Your task to perform on an android device: Show me the alarms in the clock app Image 0: 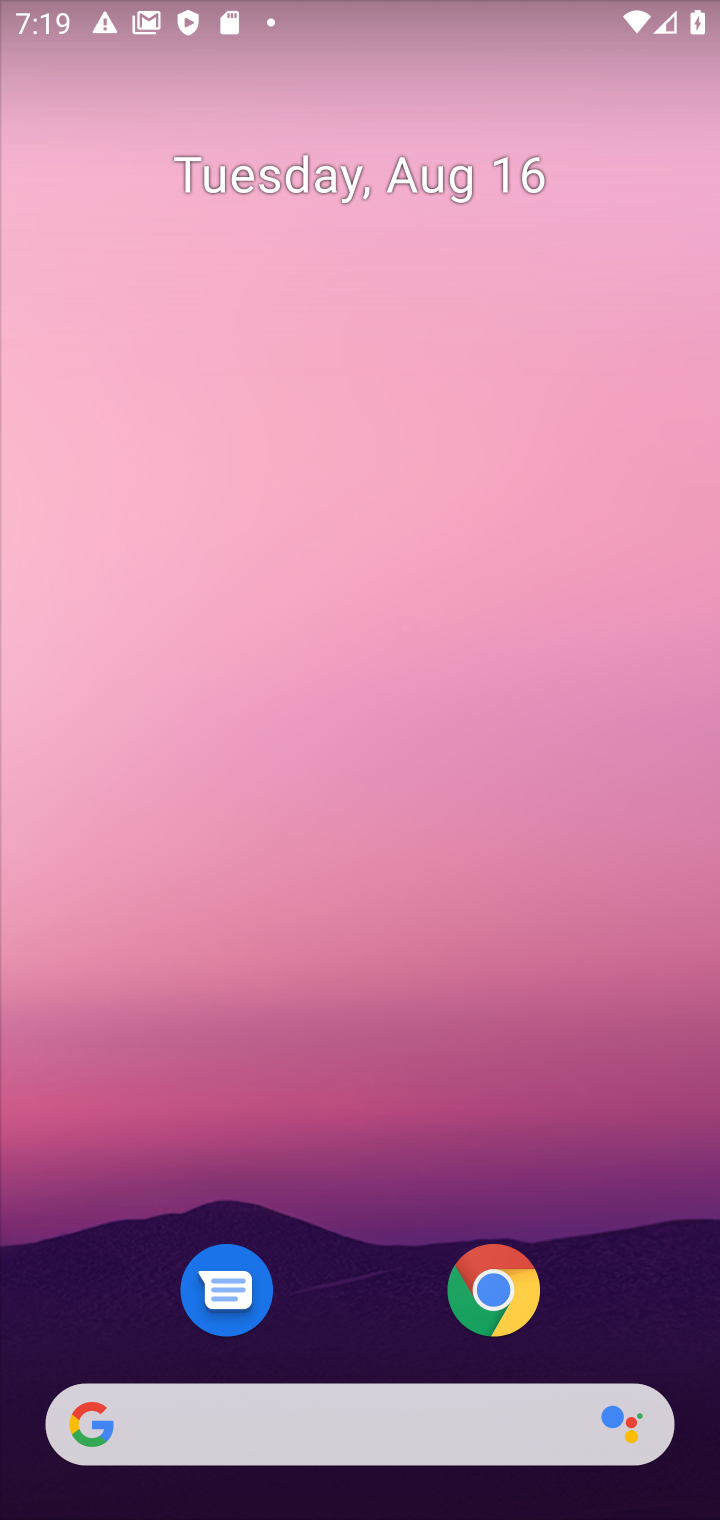
Step 0: drag from (452, 1359) to (578, 560)
Your task to perform on an android device: Show me the alarms in the clock app Image 1: 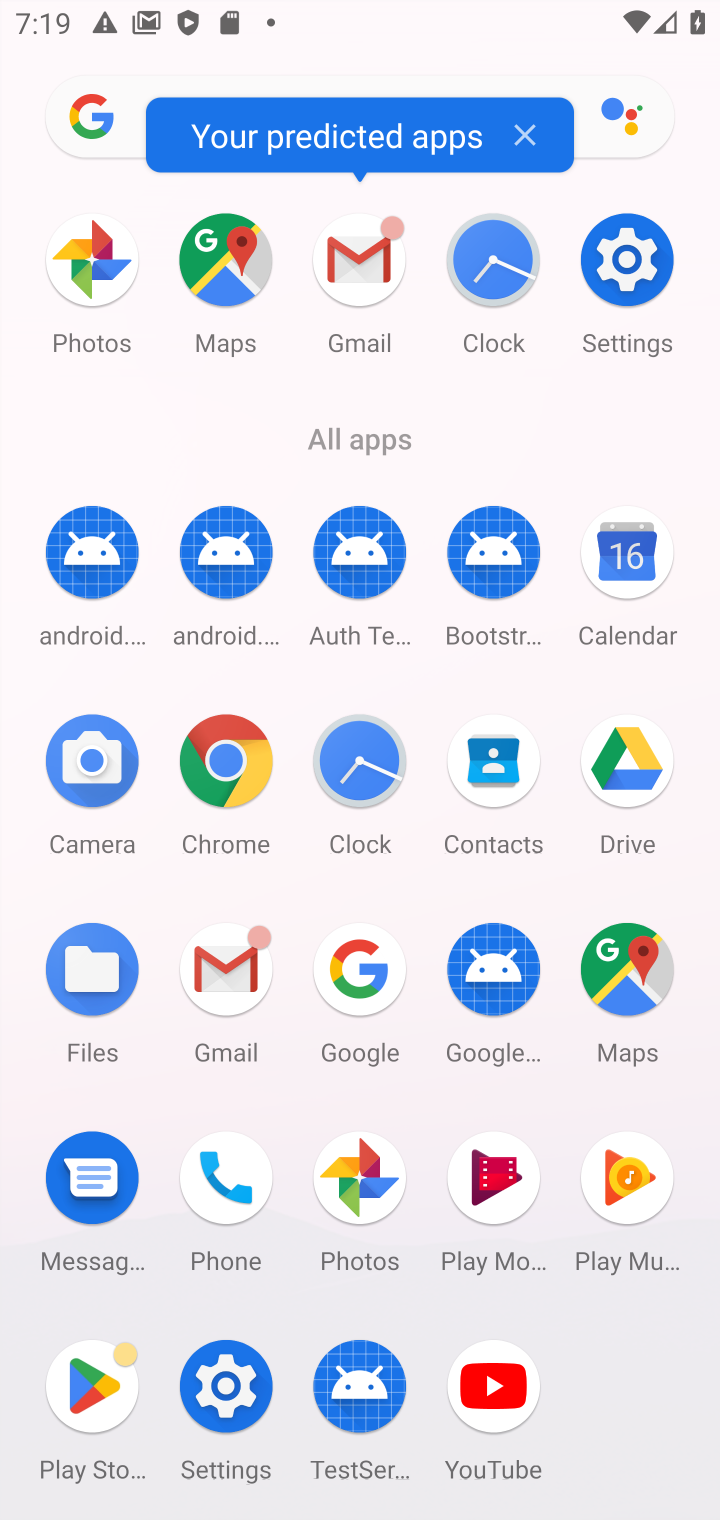
Step 1: click (496, 258)
Your task to perform on an android device: Show me the alarms in the clock app Image 2: 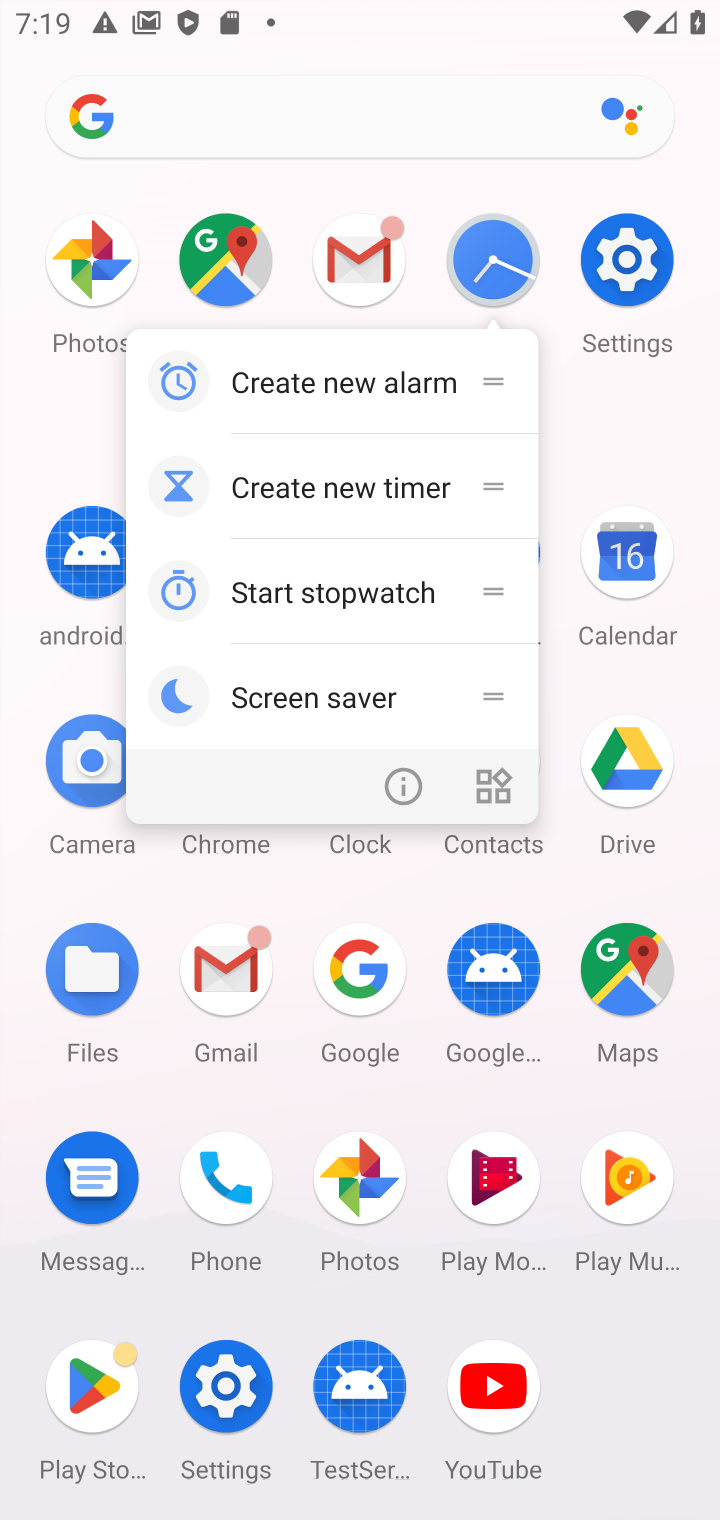
Step 2: click (496, 255)
Your task to perform on an android device: Show me the alarms in the clock app Image 3: 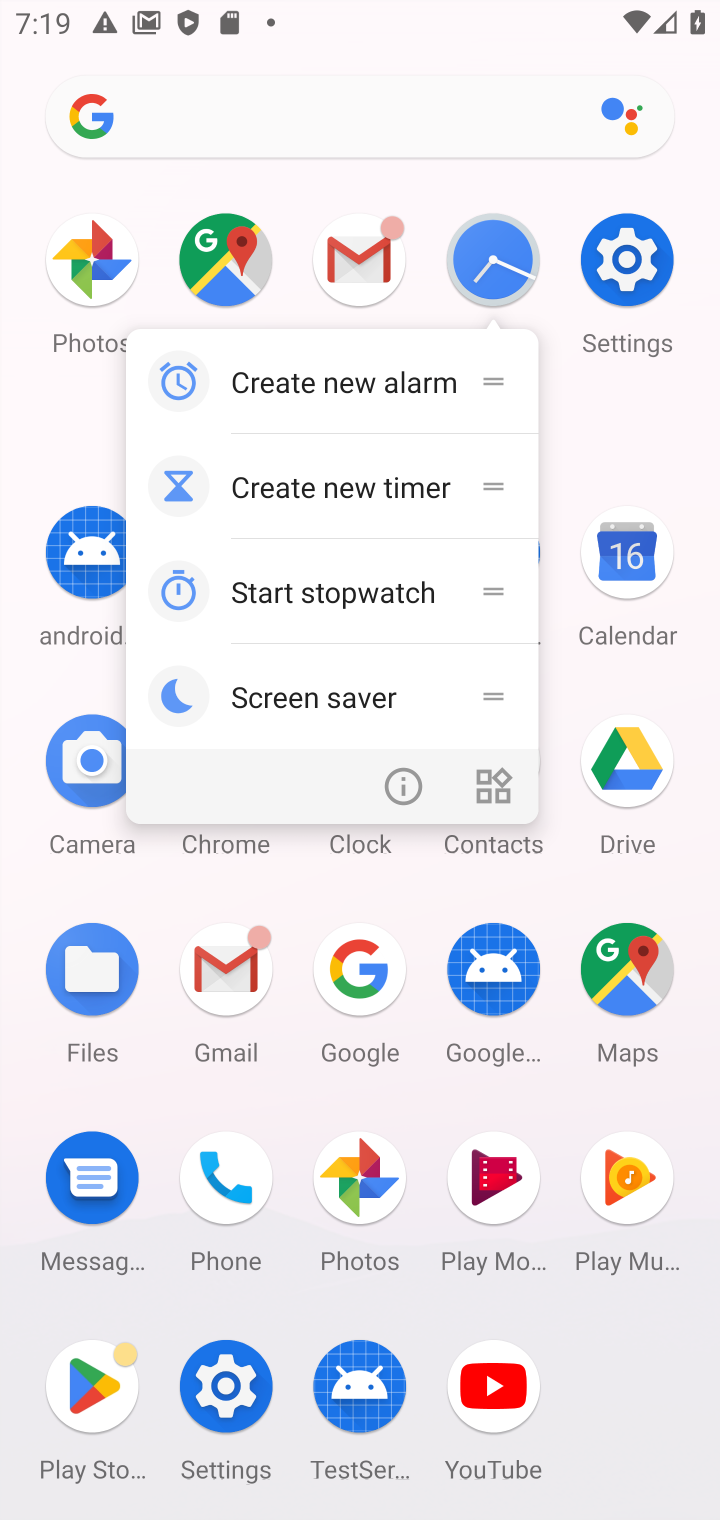
Step 3: click (494, 270)
Your task to perform on an android device: Show me the alarms in the clock app Image 4: 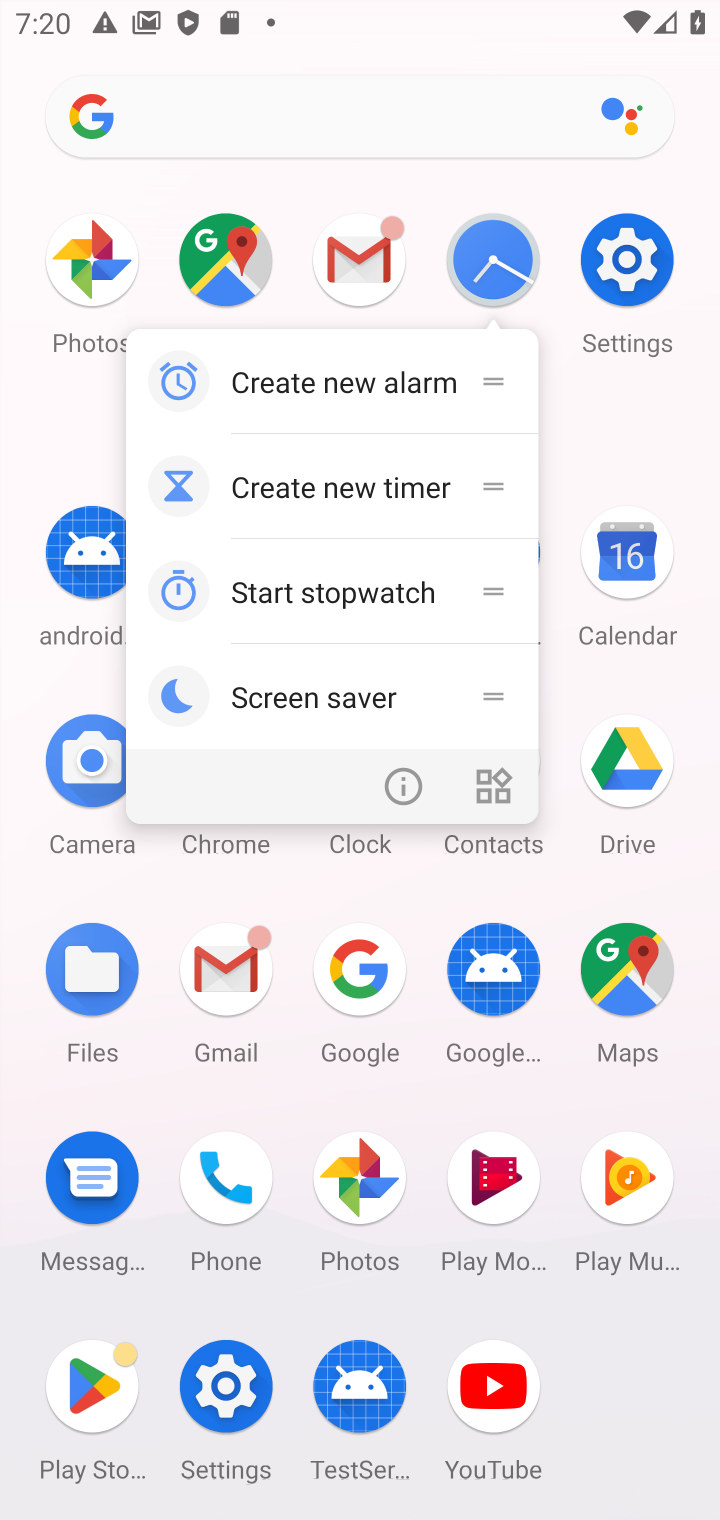
Step 4: click (494, 270)
Your task to perform on an android device: Show me the alarms in the clock app Image 5: 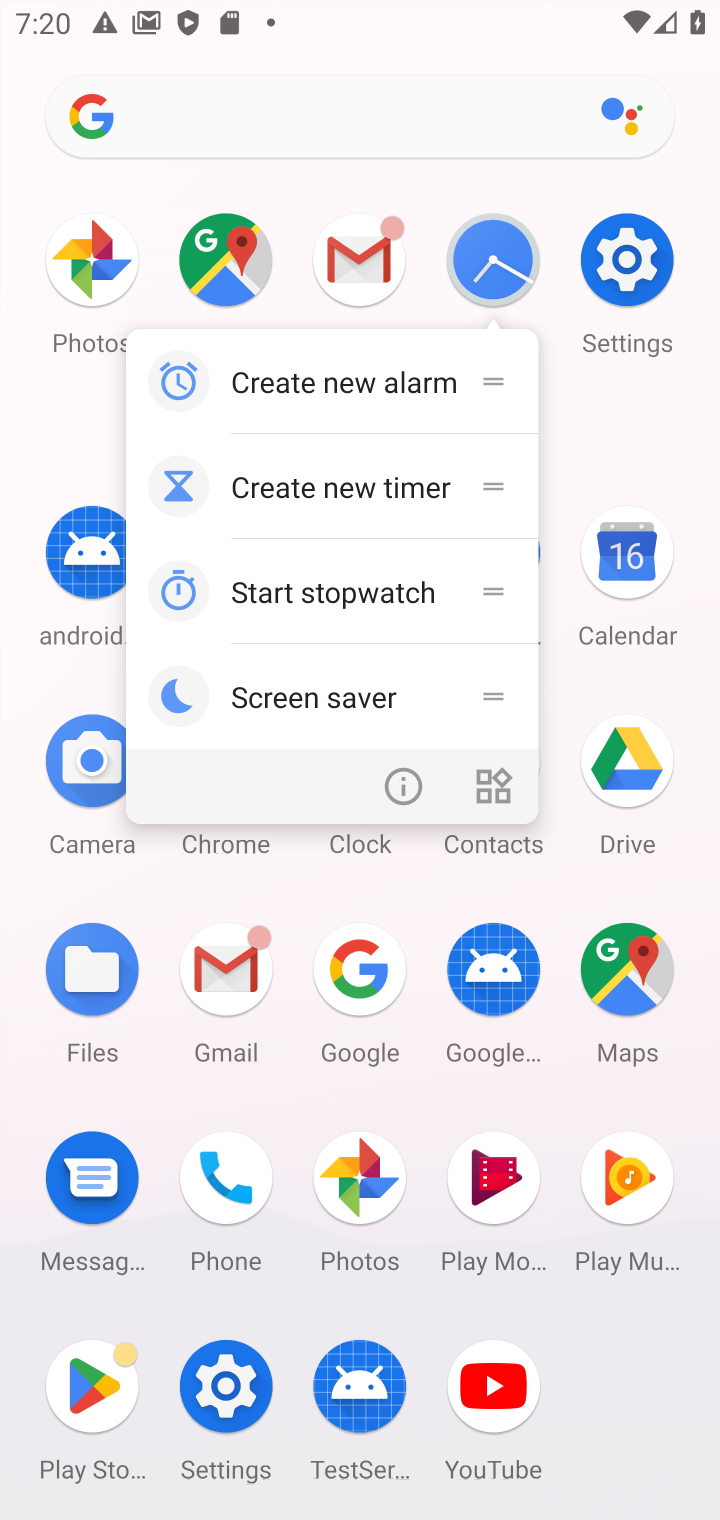
Step 5: click (494, 276)
Your task to perform on an android device: Show me the alarms in the clock app Image 6: 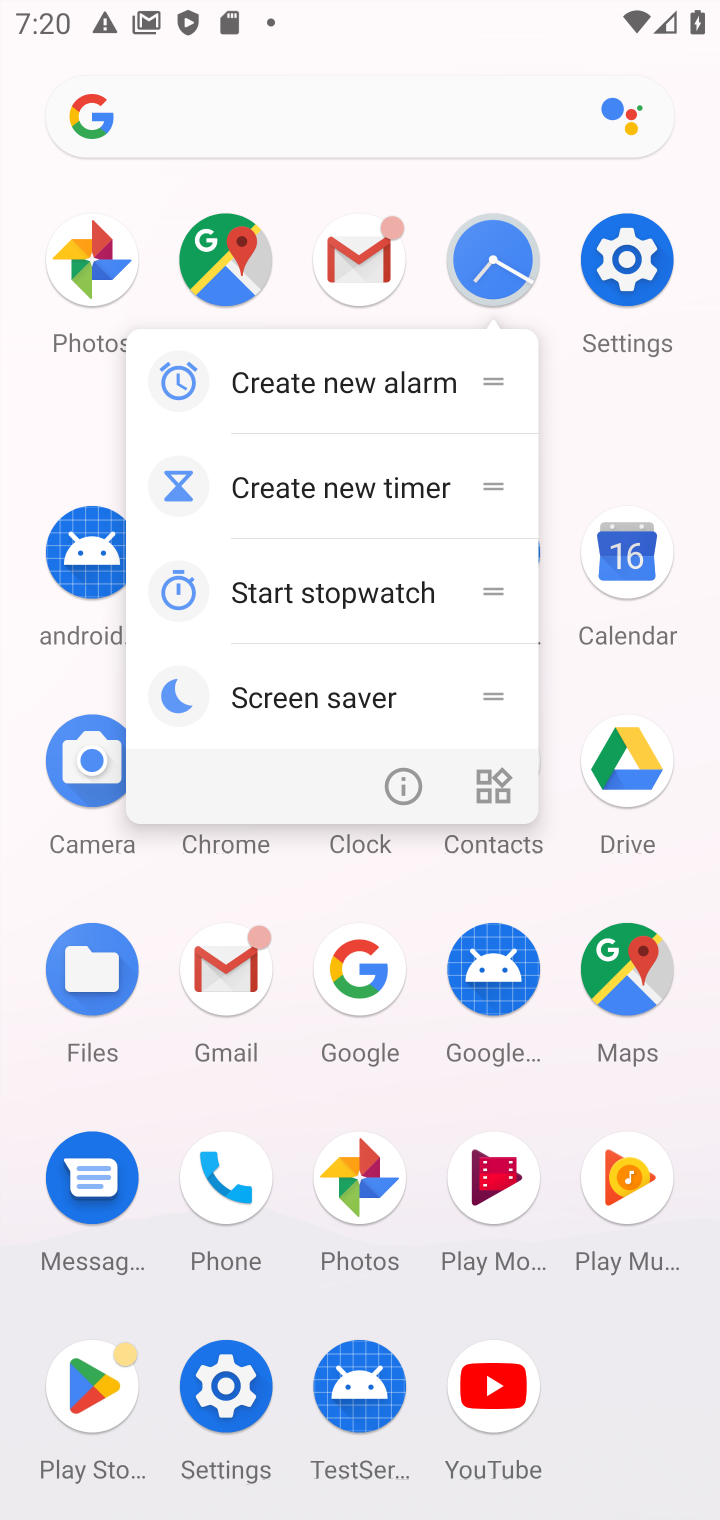
Step 6: click (494, 276)
Your task to perform on an android device: Show me the alarms in the clock app Image 7: 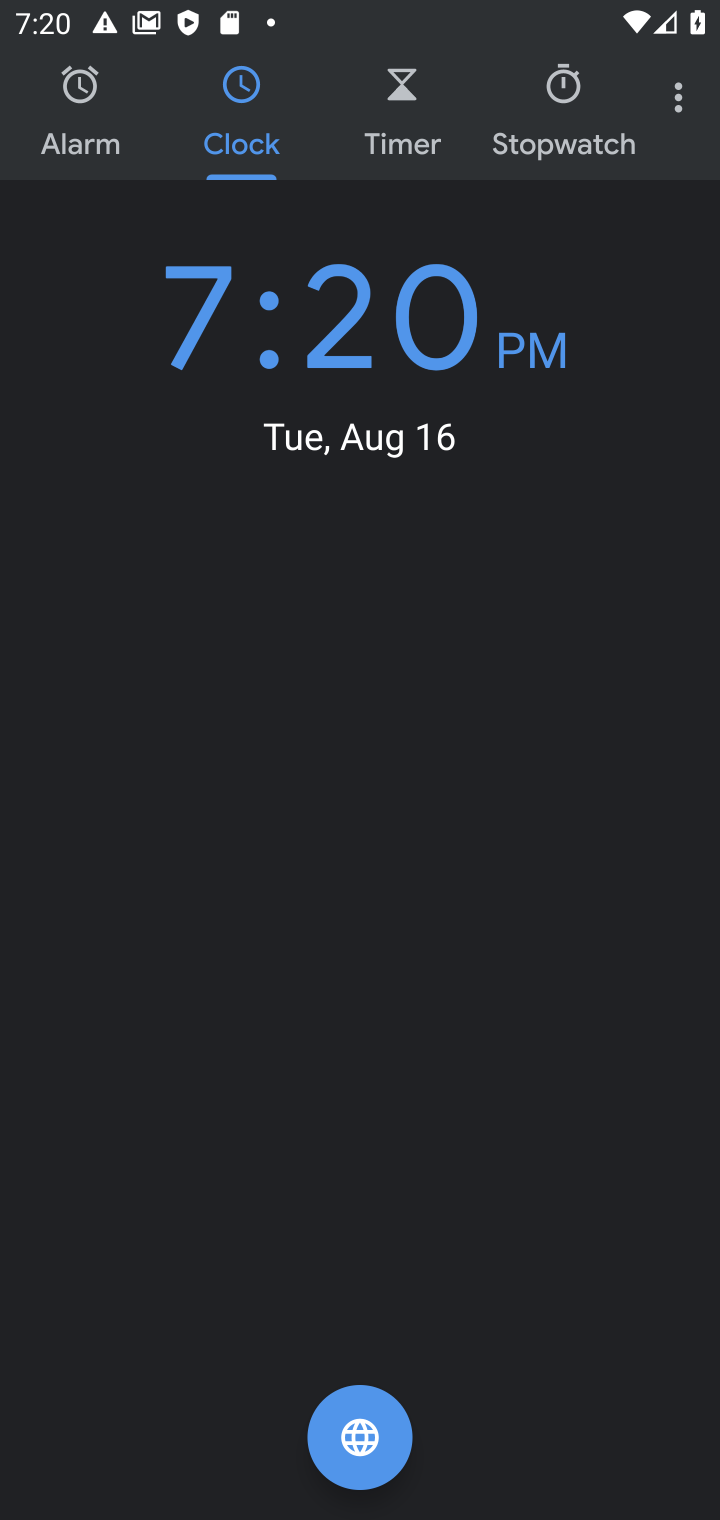
Step 7: click (81, 147)
Your task to perform on an android device: Show me the alarms in the clock app Image 8: 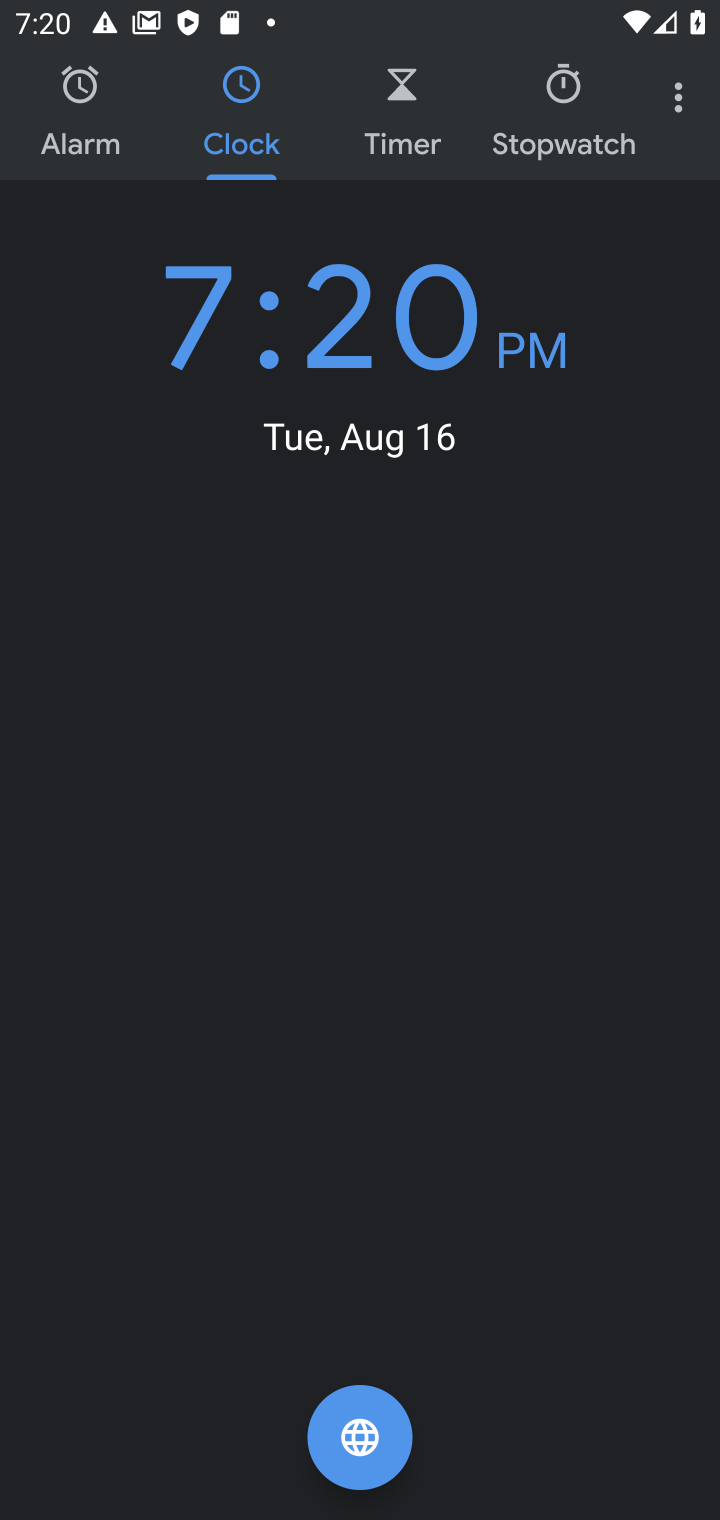
Step 8: click (74, 94)
Your task to perform on an android device: Show me the alarms in the clock app Image 9: 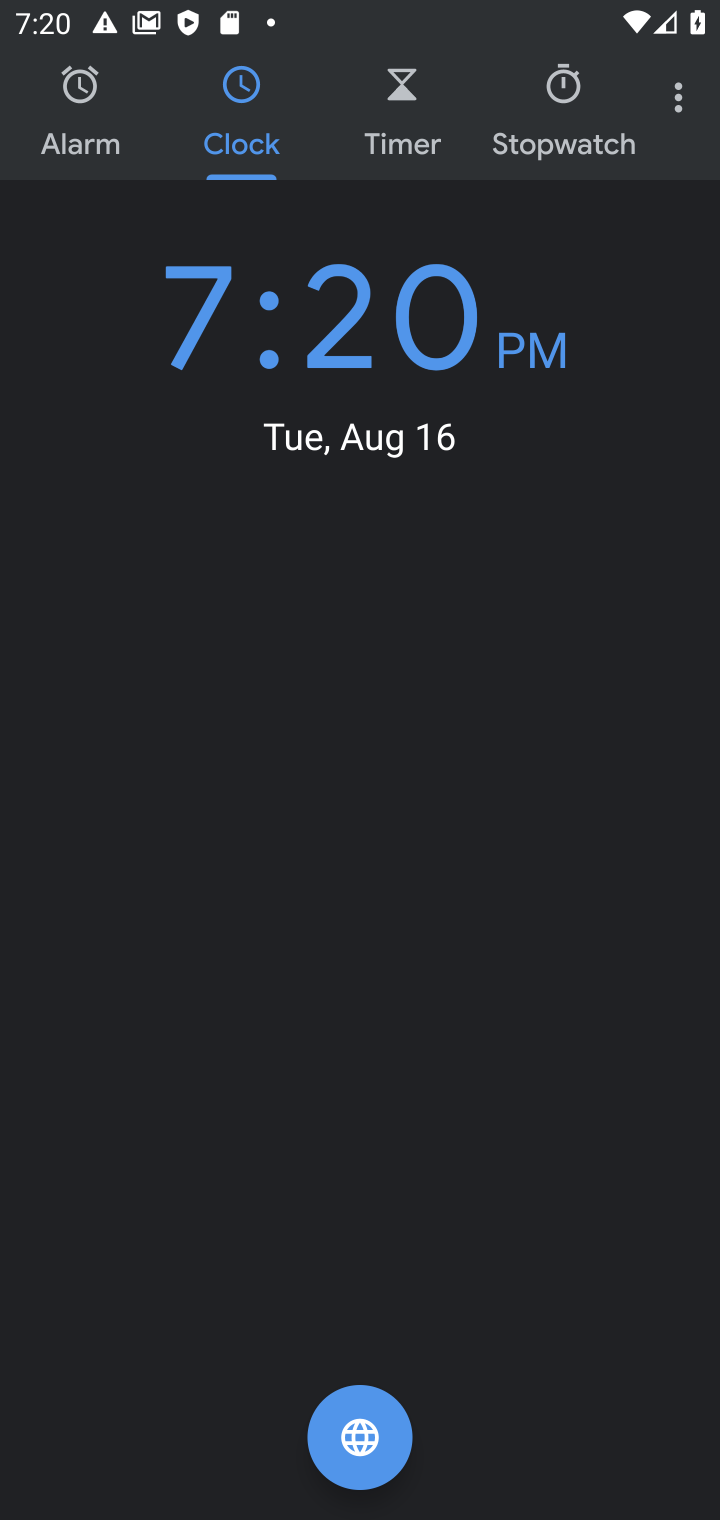
Step 9: click (80, 85)
Your task to perform on an android device: Show me the alarms in the clock app Image 10: 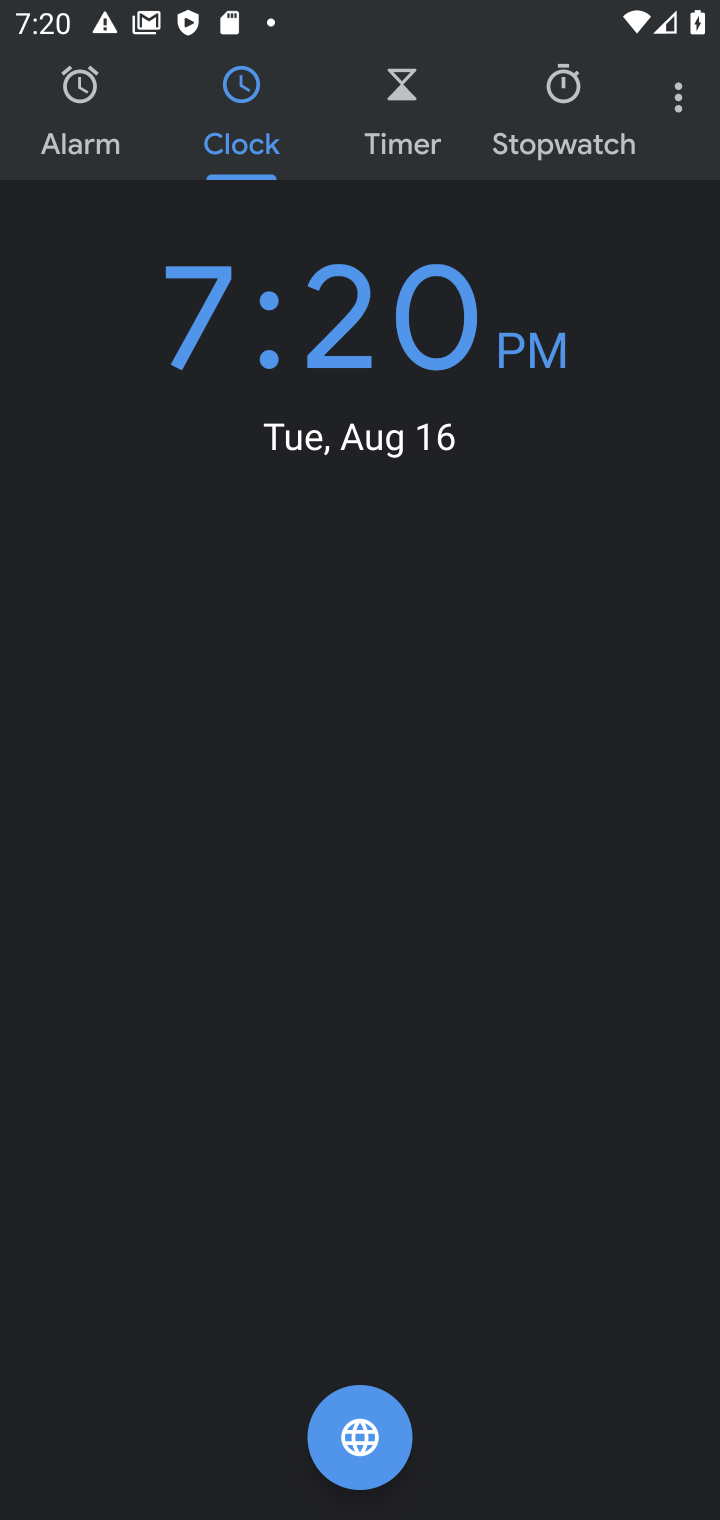
Step 10: click (90, 137)
Your task to perform on an android device: Show me the alarms in the clock app Image 11: 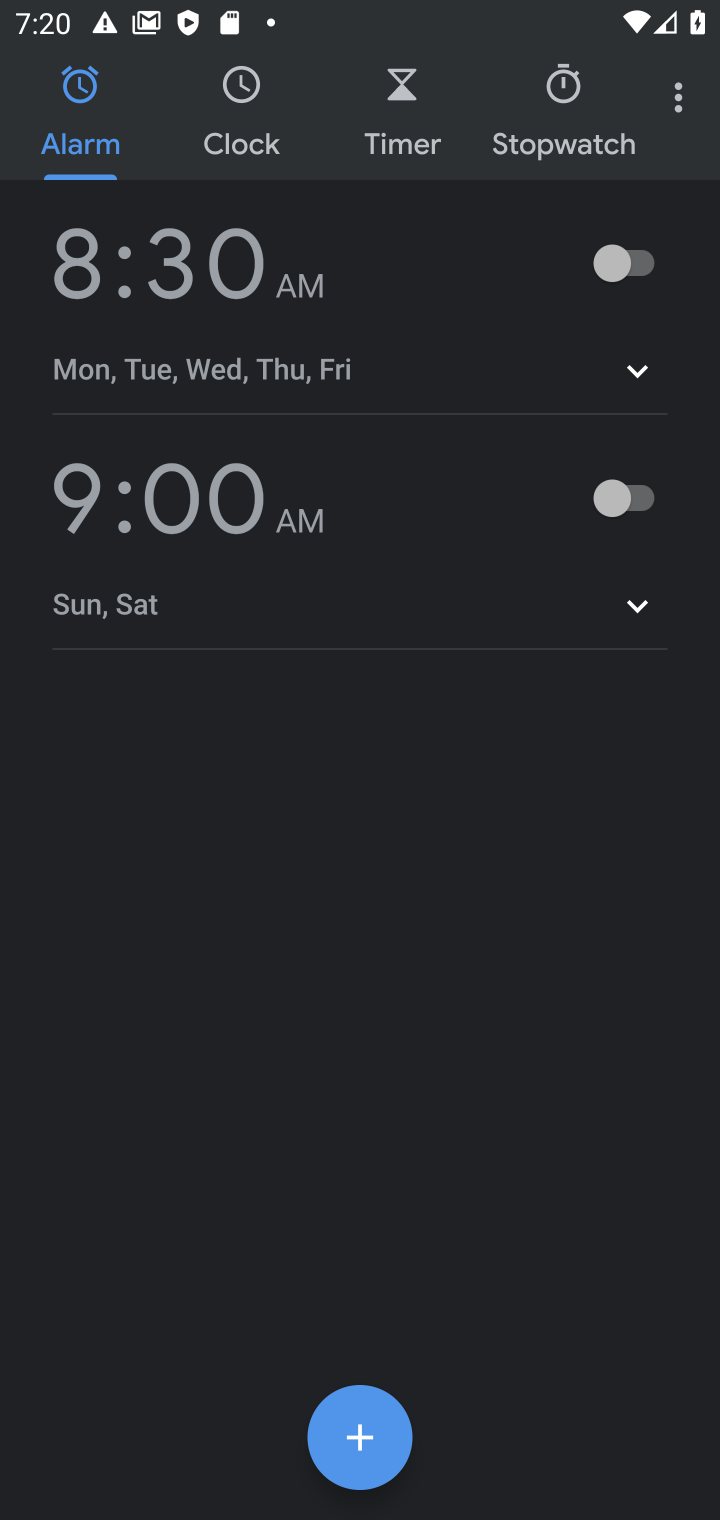
Step 11: task complete